Your task to perform on an android device: Google the capital of Canada Image 0: 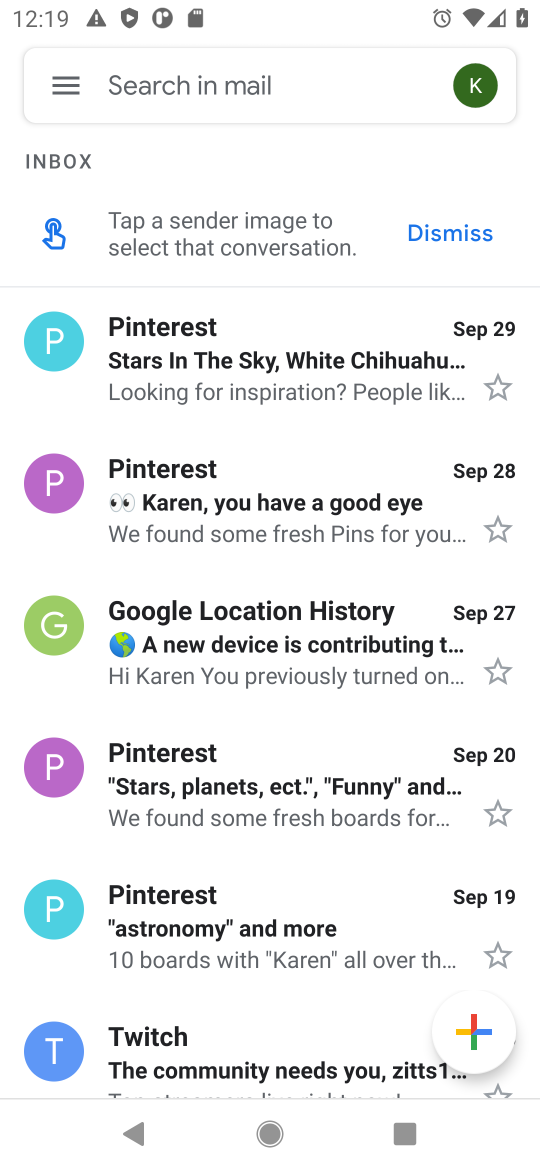
Step 0: press home button
Your task to perform on an android device: Google the capital of Canada Image 1: 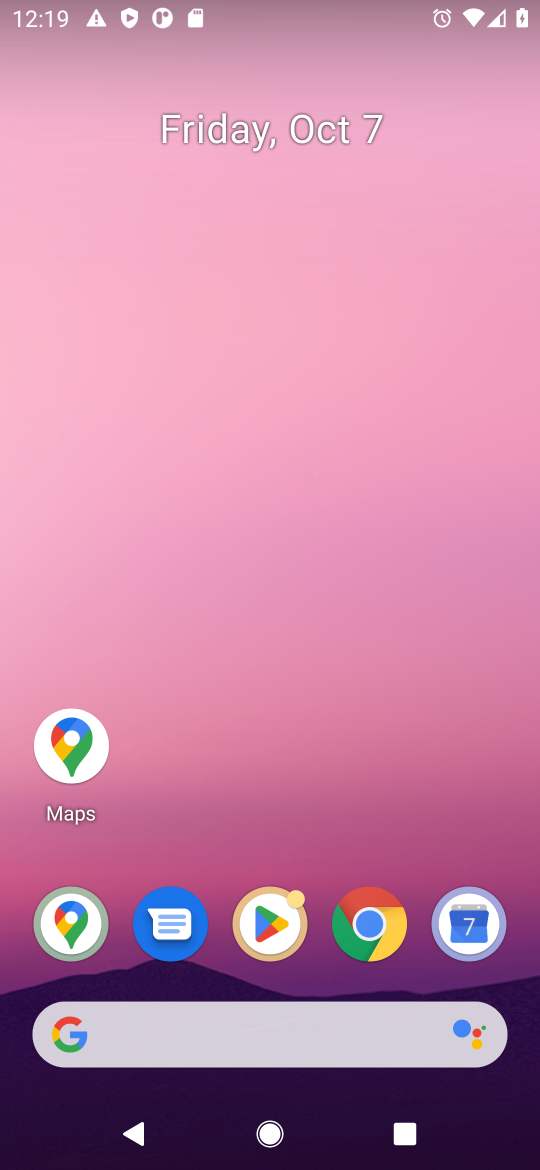
Step 1: click (366, 917)
Your task to perform on an android device: Google the capital of Canada Image 2: 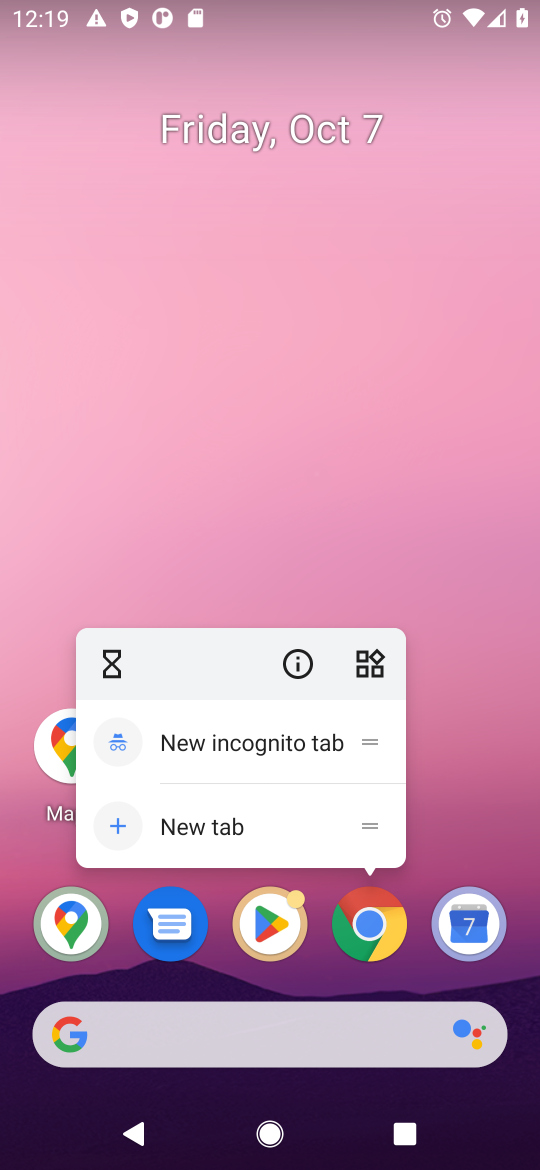
Step 2: click (376, 928)
Your task to perform on an android device: Google the capital of Canada Image 3: 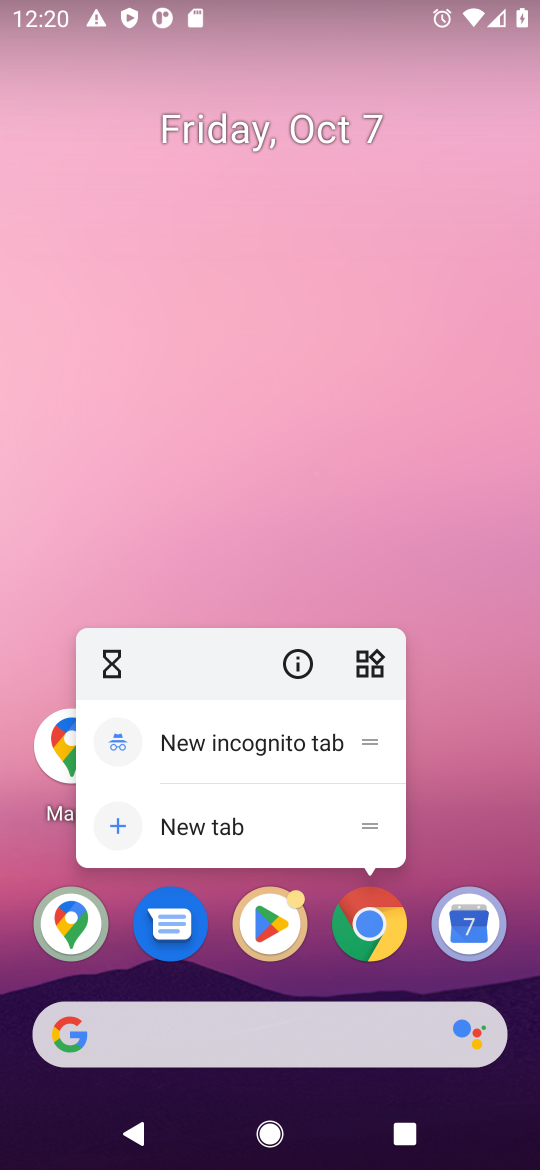
Step 3: click (376, 928)
Your task to perform on an android device: Google the capital of Canada Image 4: 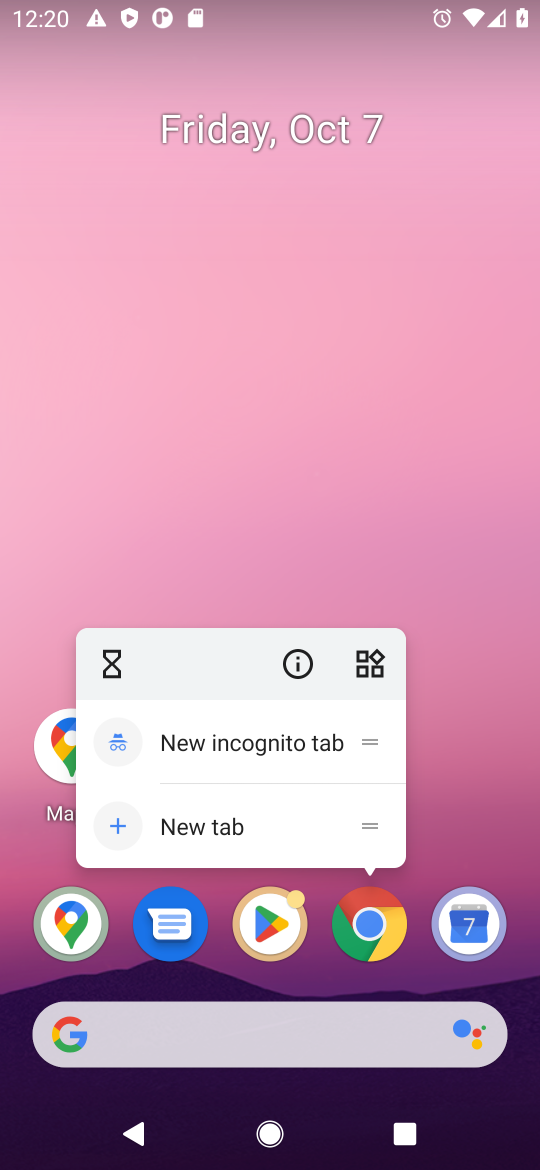
Step 4: click (376, 928)
Your task to perform on an android device: Google the capital of Canada Image 5: 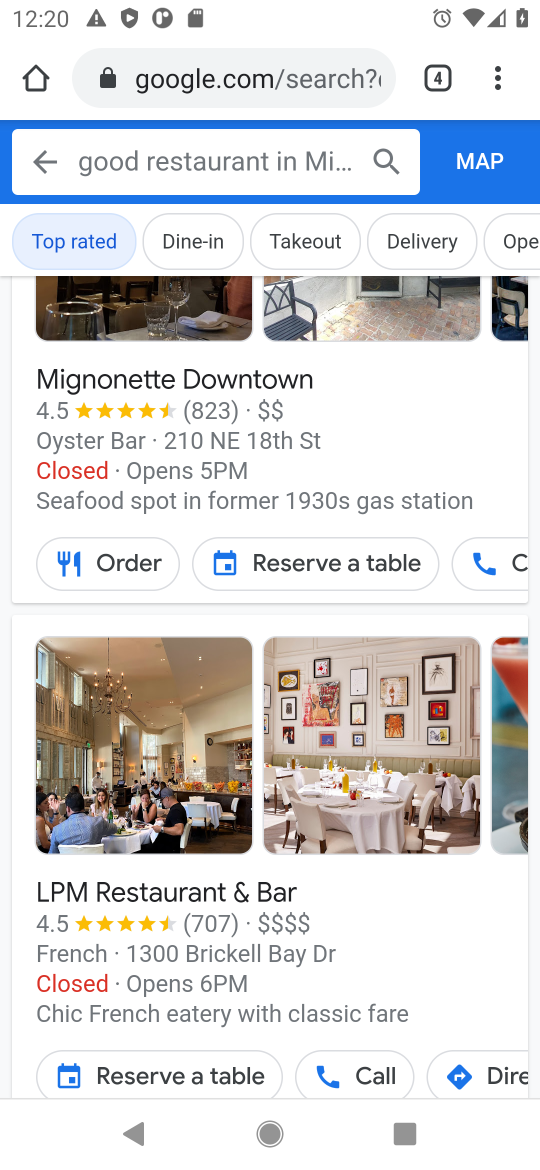
Step 5: click (292, 69)
Your task to perform on an android device: Google the capital of Canada Image 6: 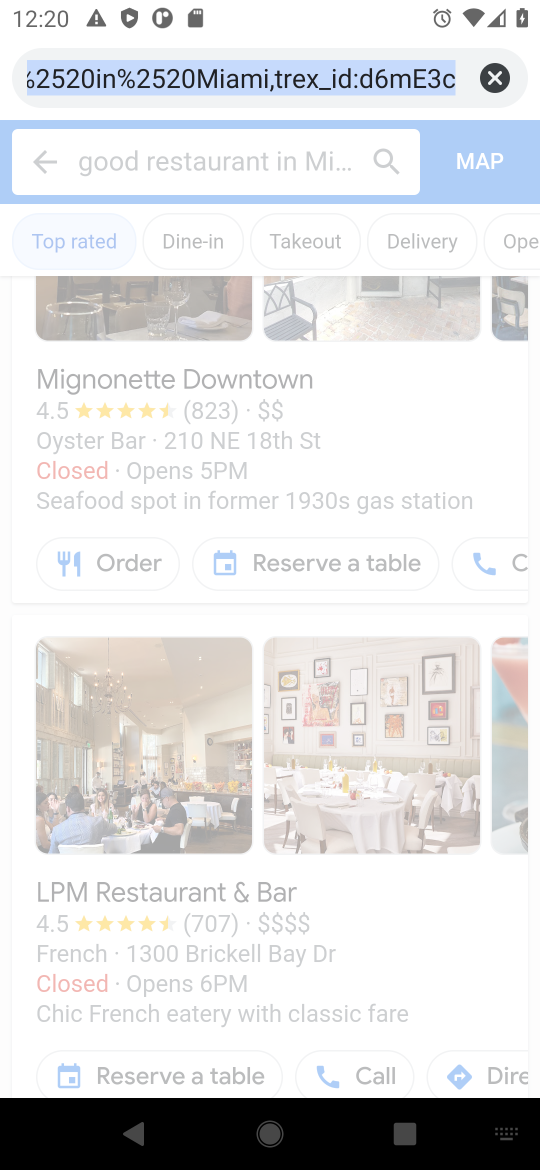
Step 6: click (499, 69)
Your task to perform on an android device: Google the capital of Canada Image 7: 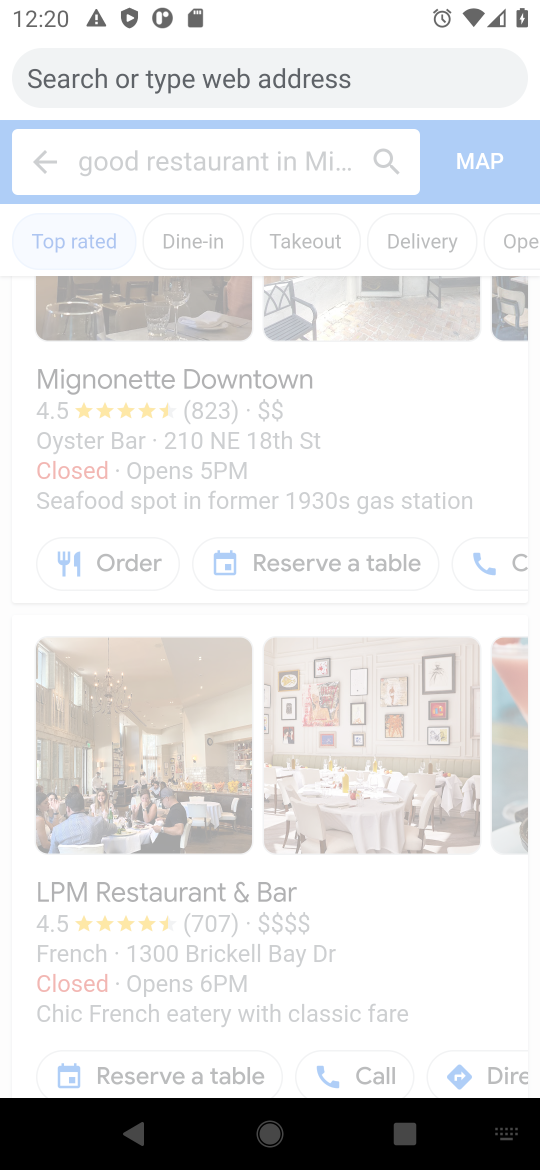
Step 7: type "capital of Canada"
Your task to perform on an android device: Google the capital of Canada Image 8: 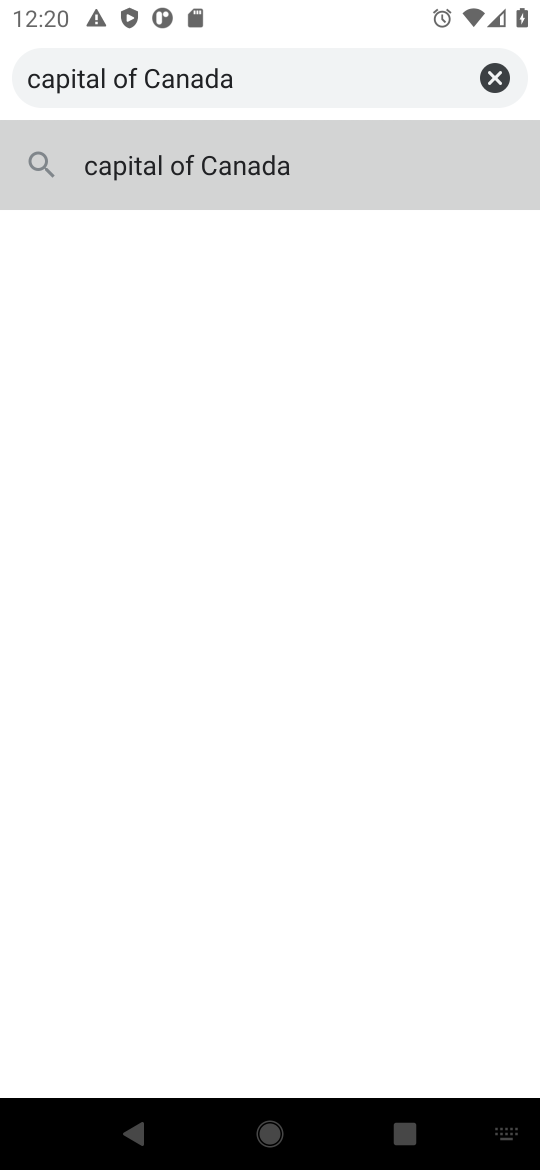
Step 8: click (238, 161)
Your task to perform on an android device: Google the capital of Canada Image 9: 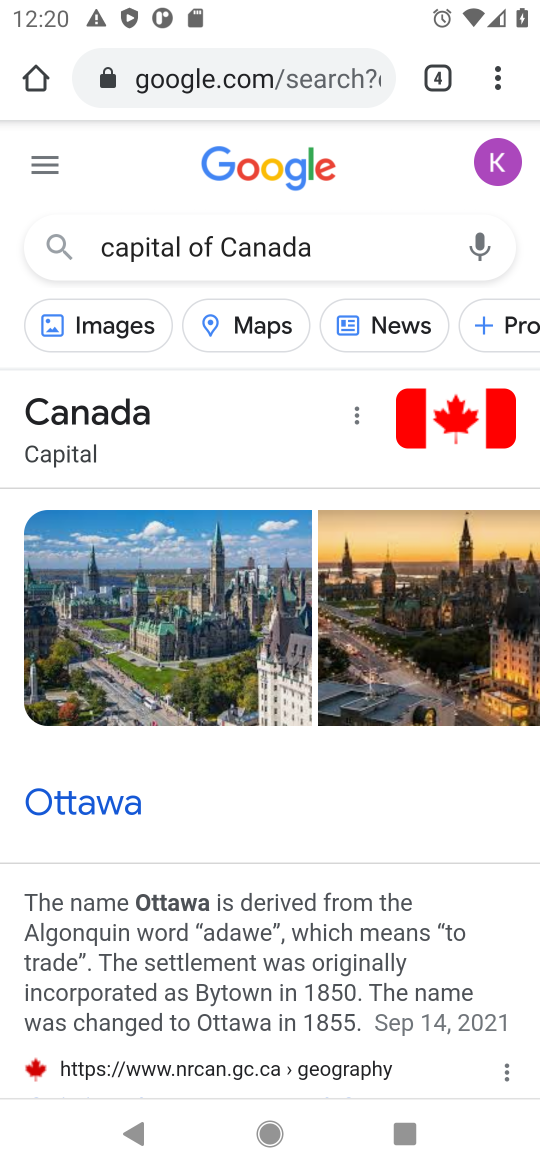
Step 9: task complete